Your task to perform on an android device: turn on the 12-hour format for clock Image 0: 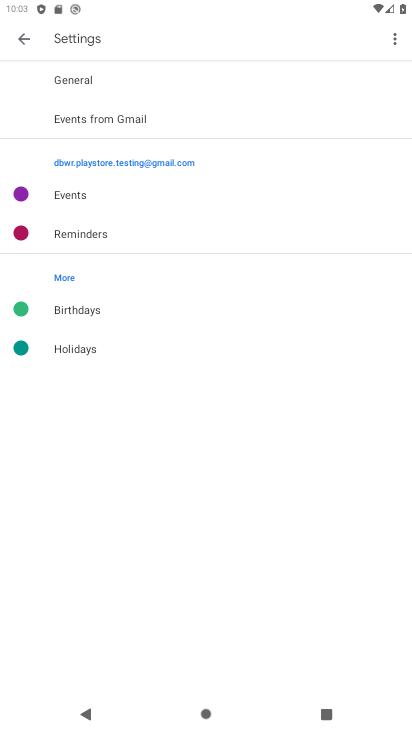
Step 0: press home button
Your task to perform on an android device: turn on the 12-hour format for clock Image 1: 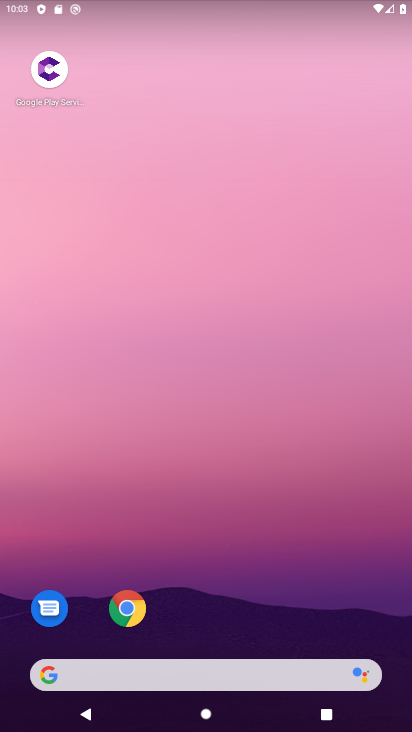
Step 1: drag from (385, 602) to (352, 219)
Your task to perform on an android device: turn on the 12-hour format for clock Image 2: 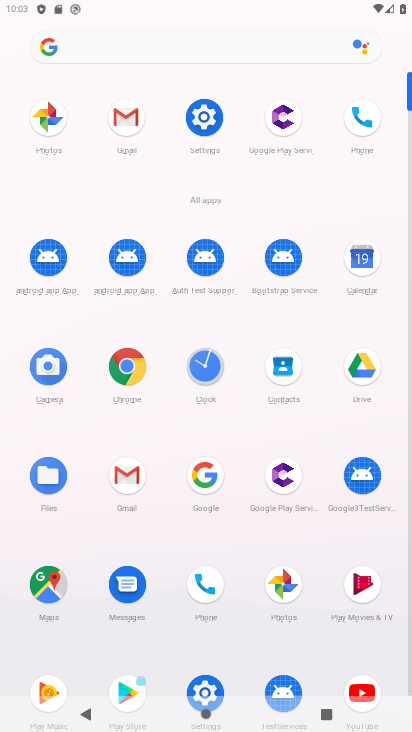
Step 2: click (204, 372)
Your task to perform on an android device: turn on the 12-hour format for clock Image 3: 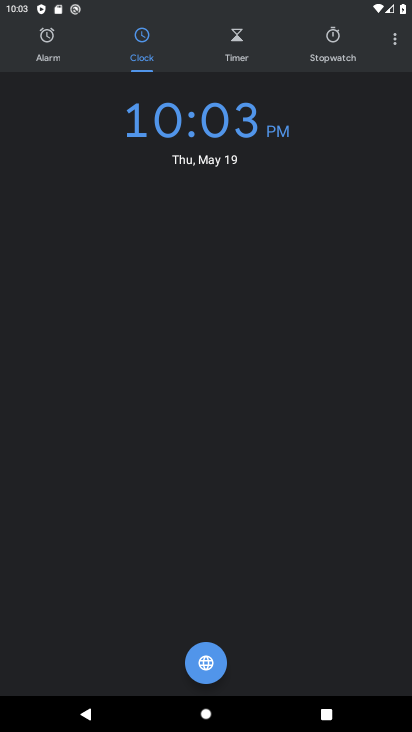
Step 3: click (397, 39)
Your task to perform on an android device: turn on the 12-hour format for clock Image 4: 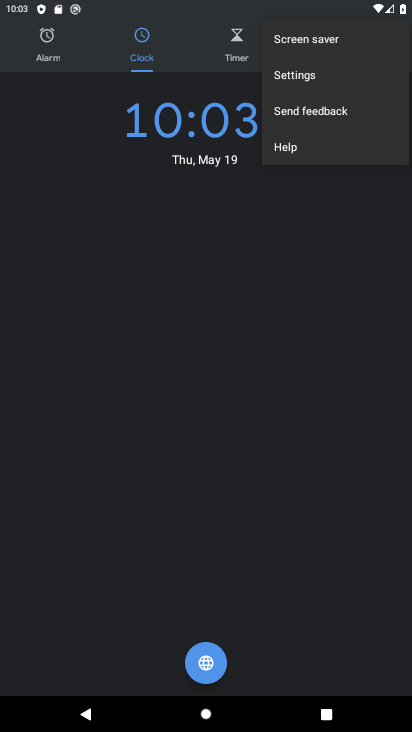
Step 4: click (299, 78)
Your task to perform on an android device: turn on the 12-hour format for clock Image 5: 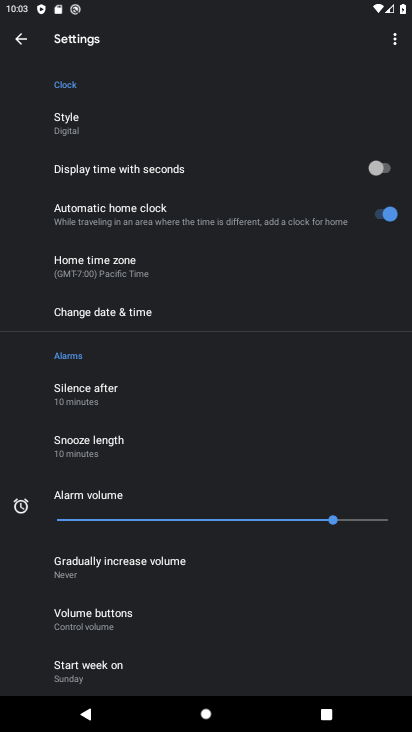
Step 5: click (82, 308)
Your task to perform on an android device: turn on the 12-hour format for clock Image 6: 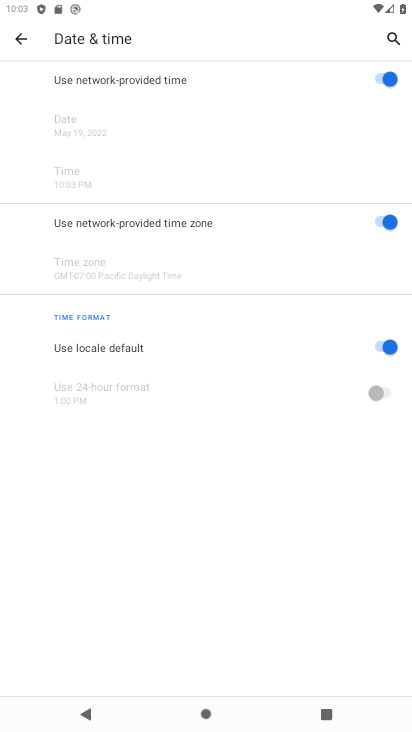
Step 6: task complete